Your task to perform on an android device: Go to wifi settings Image 0: 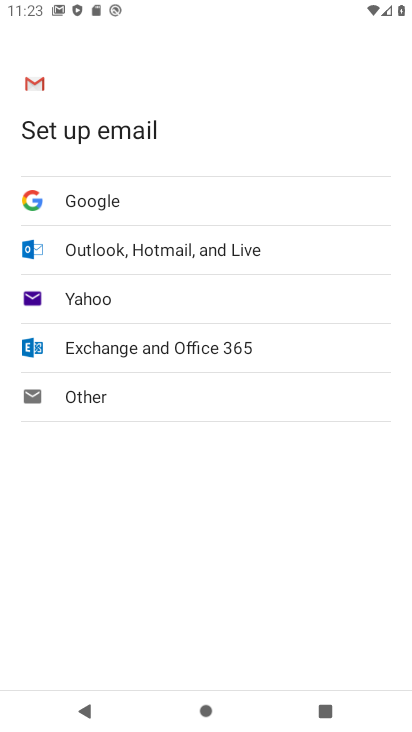
Step 0: press home button
Your task to perform on an android device: Go to wifi settings Image 1: 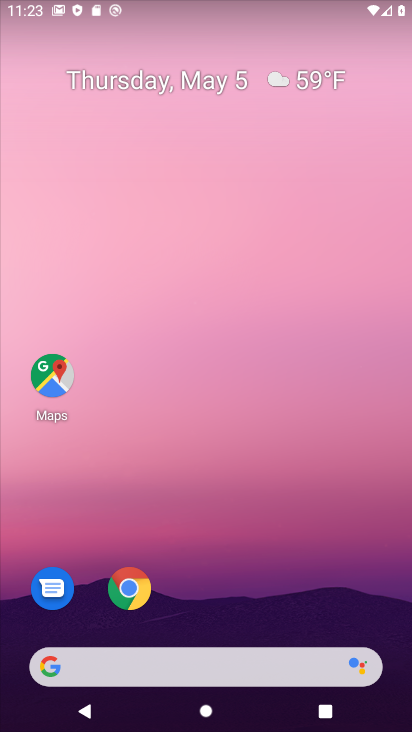
Step 1: drag from (227, 616) to (319, 144)
Your task to perform on an android device: Go to wifi settings Image 2: 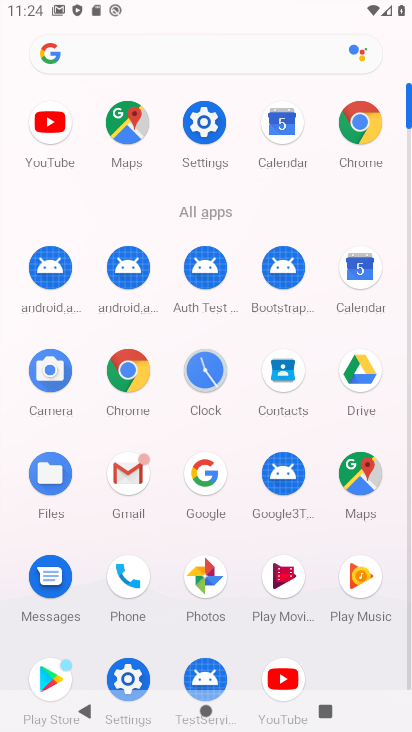
Step 2: click (203, 133)
Your task to perform on an android device: Go to wifi settings Image 3: 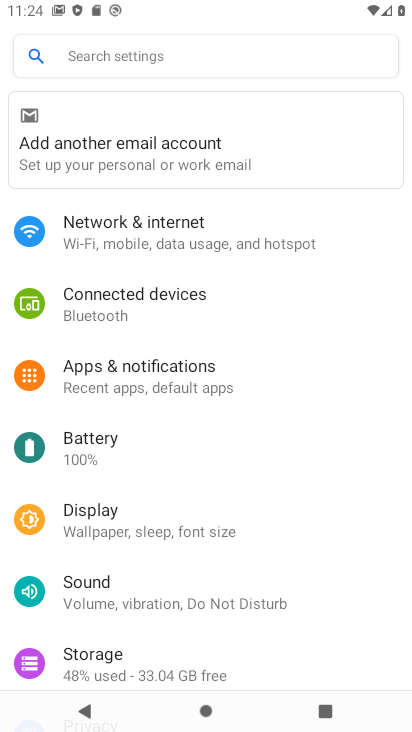
Step 3: click (170, 231)
Your task to perform on an android device: Go to wifi settings Image 4: 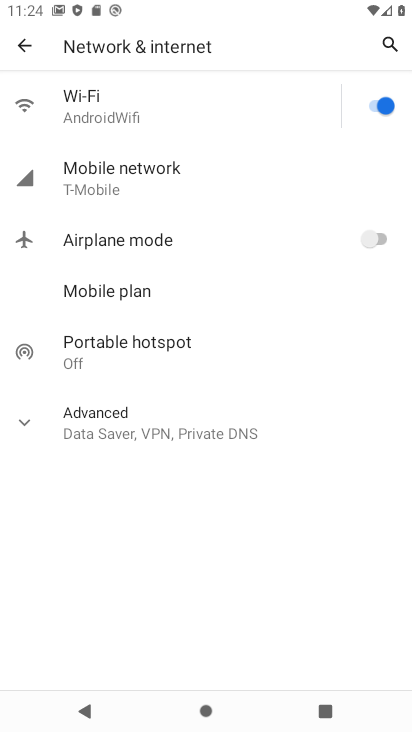
Step 4: click (99, 117)
Your task to perform on an android device: Go to wifi settings Image 5: 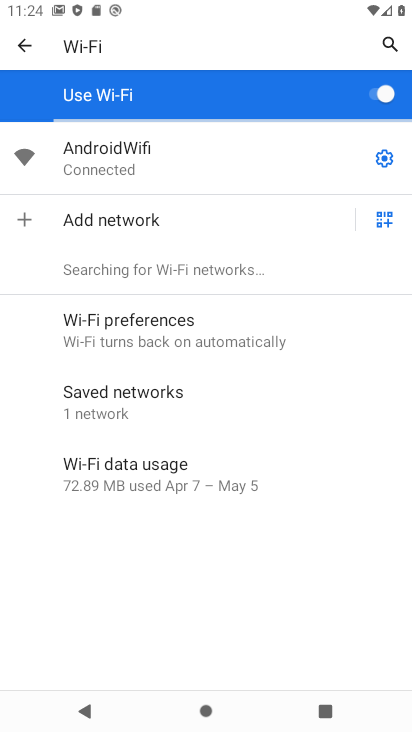
Step 5: task complete